Your task to perform on an android device: open app "Instagram" Image 0: 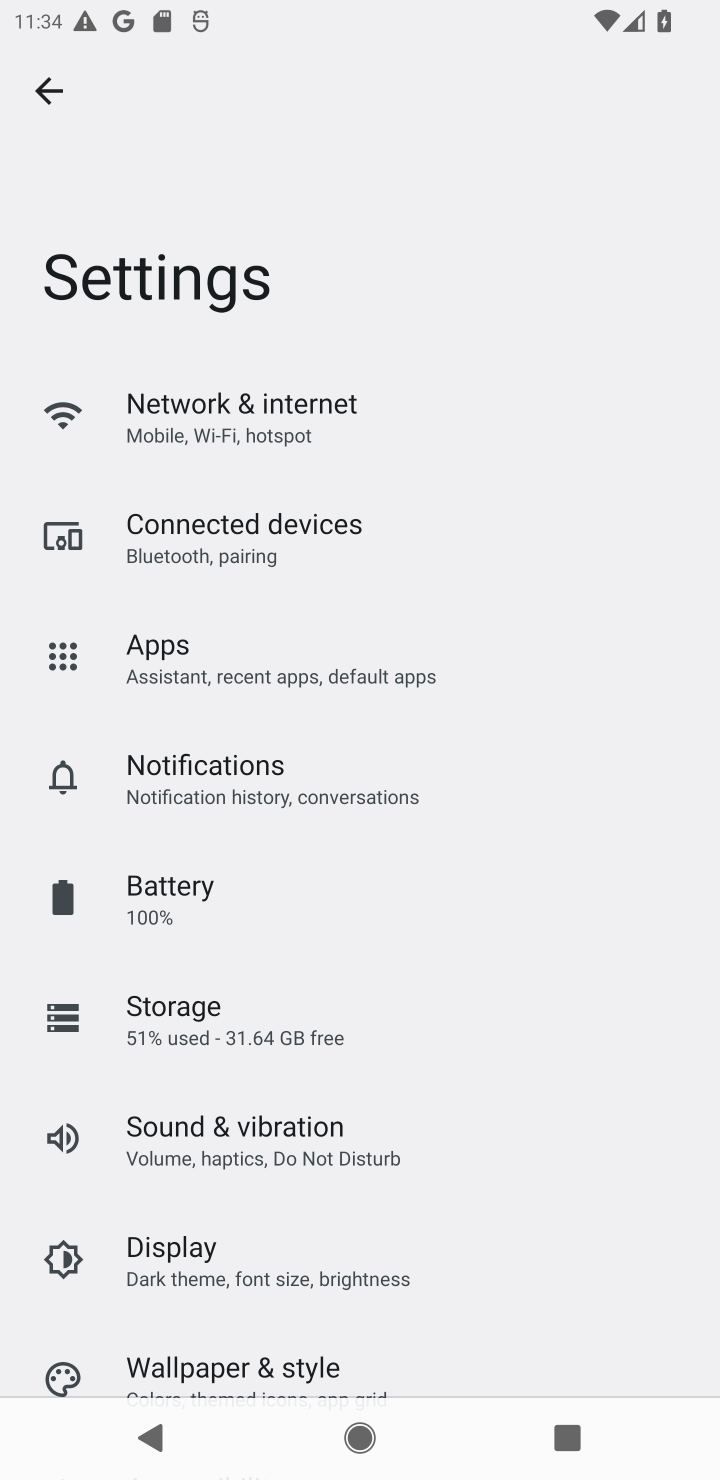
Step 0: press home button
Your task to perform on an android device: open app "Instagram" Image 1: 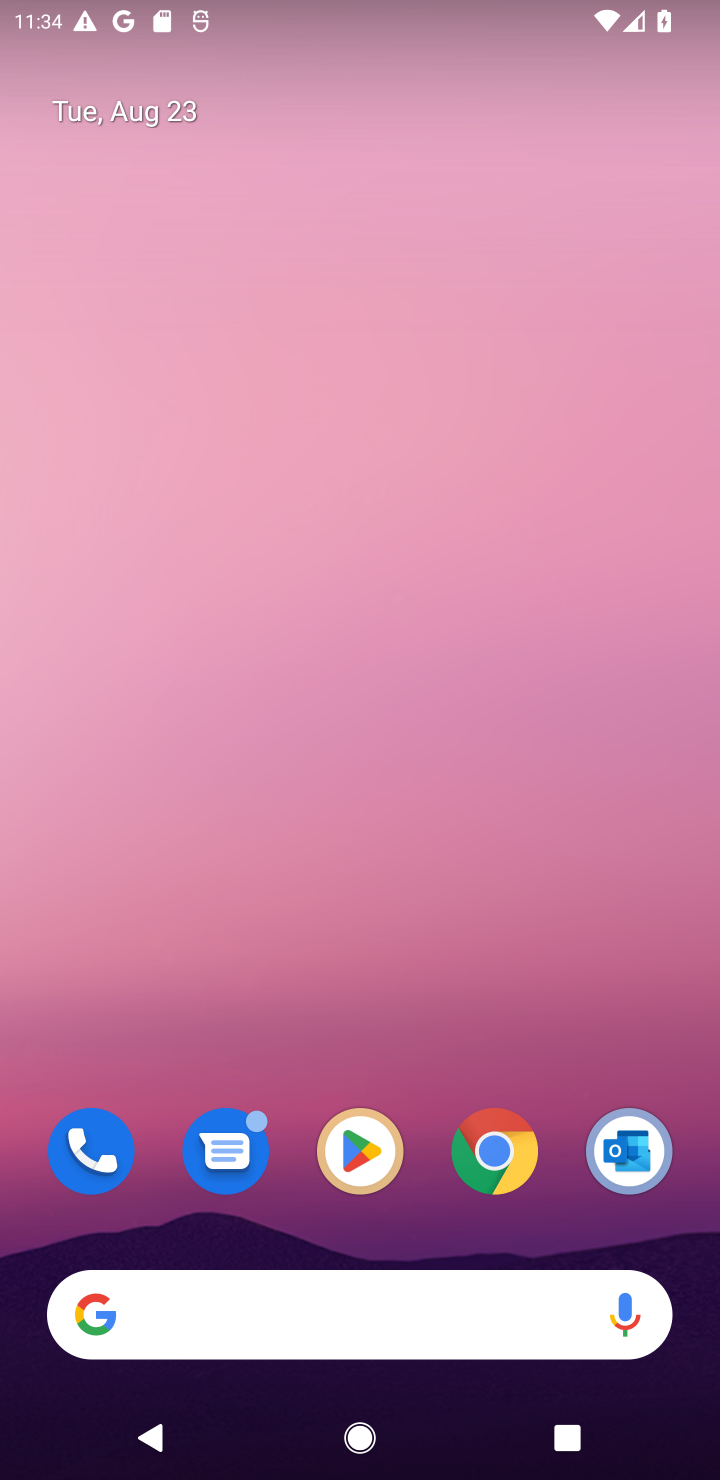
Step 1: click (387, 1143)
Your task to perform on an android device: open app "Instagram" Image 2: 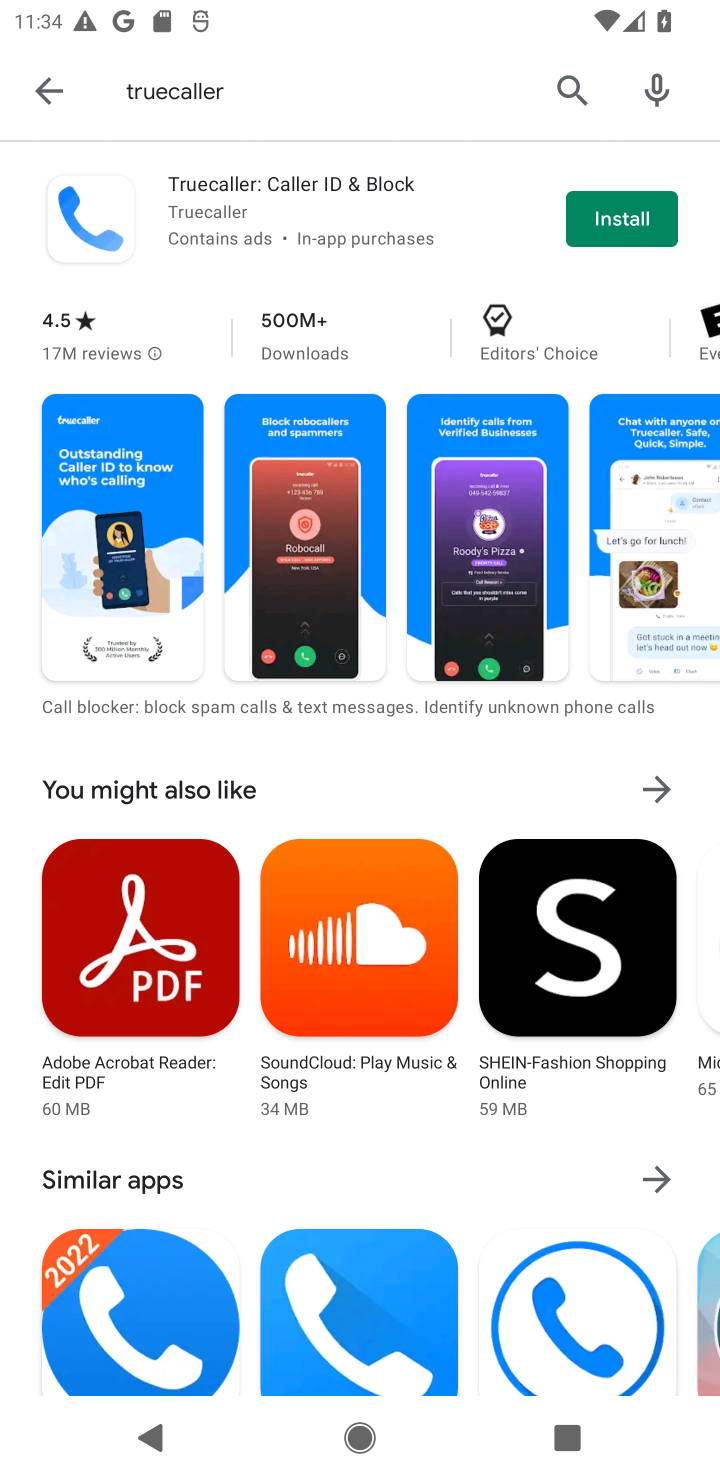
Step 2: click (559, 80)
Your task to perform on an android device: open app "Instagram" Image 3: 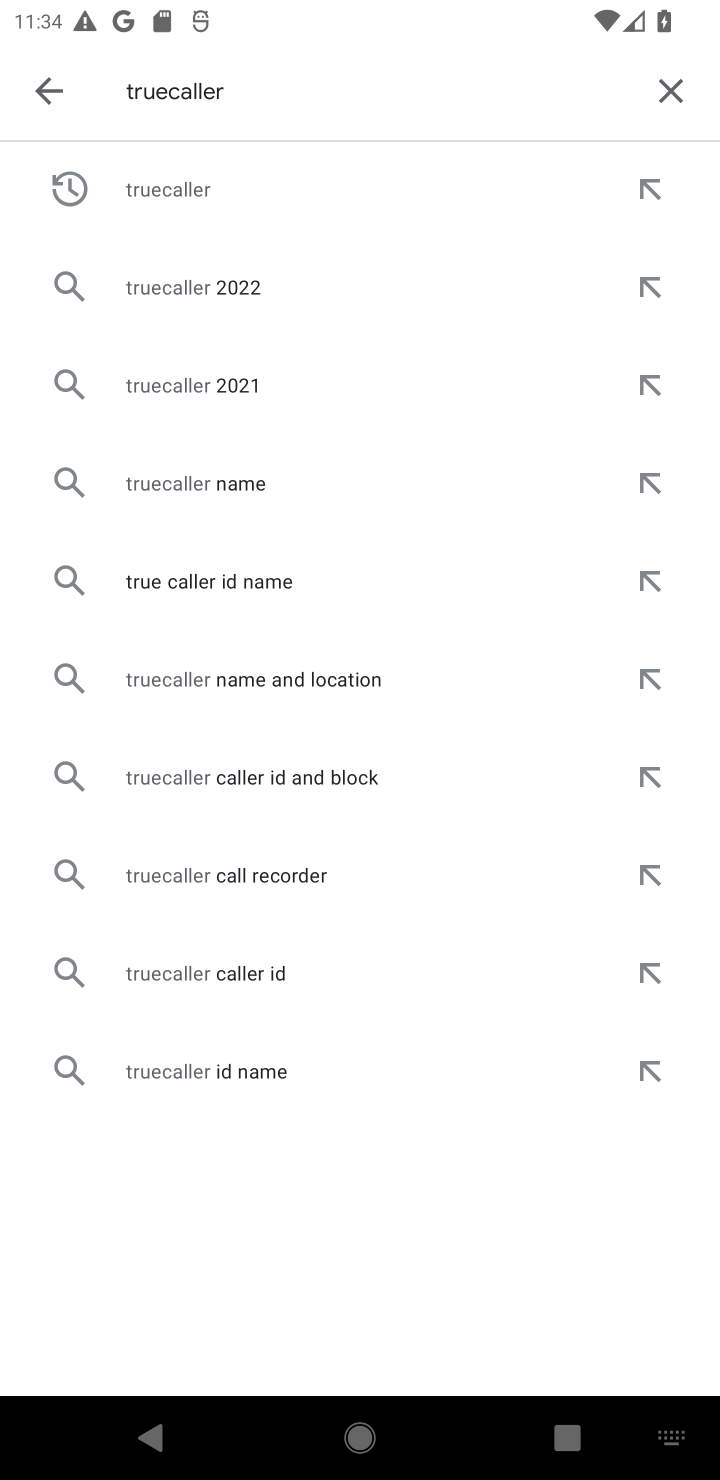
Step 3: click (666, 82)
Your task to perform on an android device: open app "Instagram" Image 4: 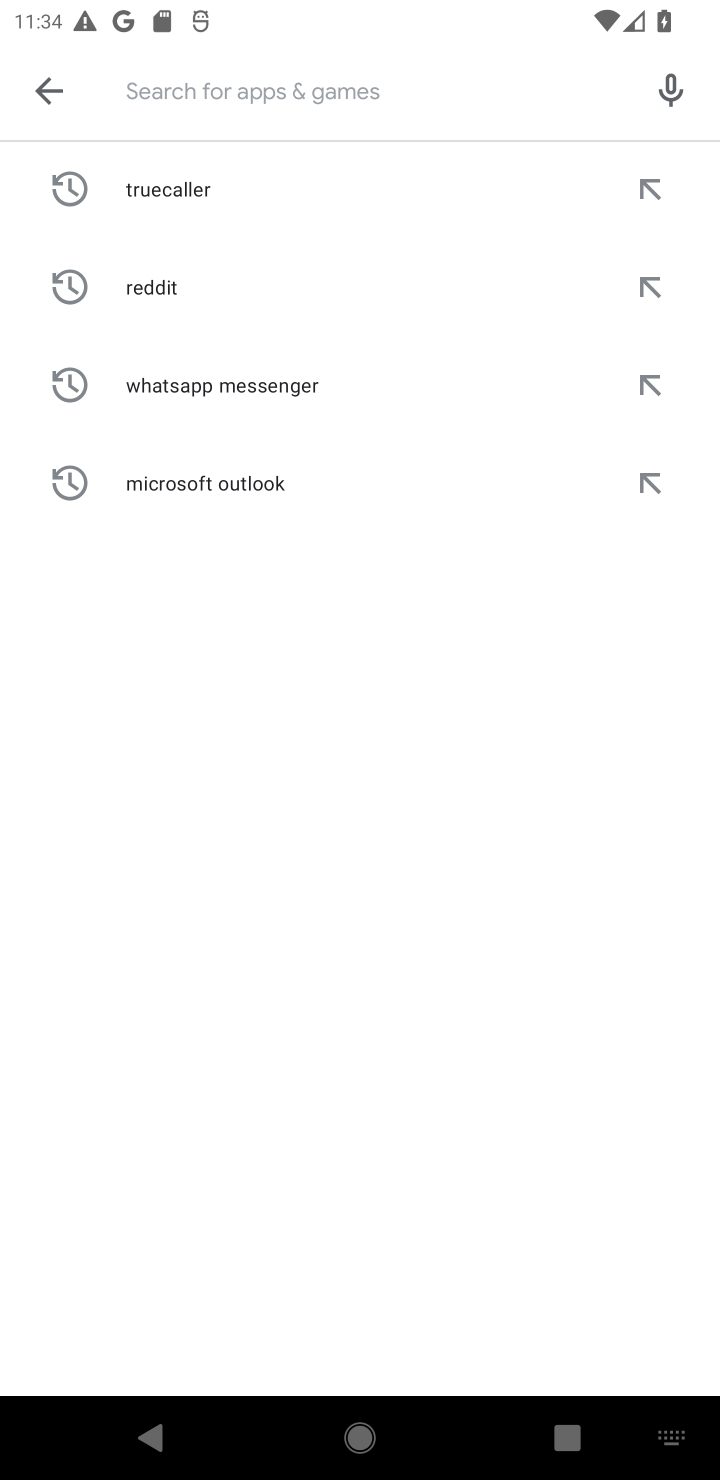
Step 4: type "Instagram"
Your task to perform on an android device: open app "Instagram" Image 5: 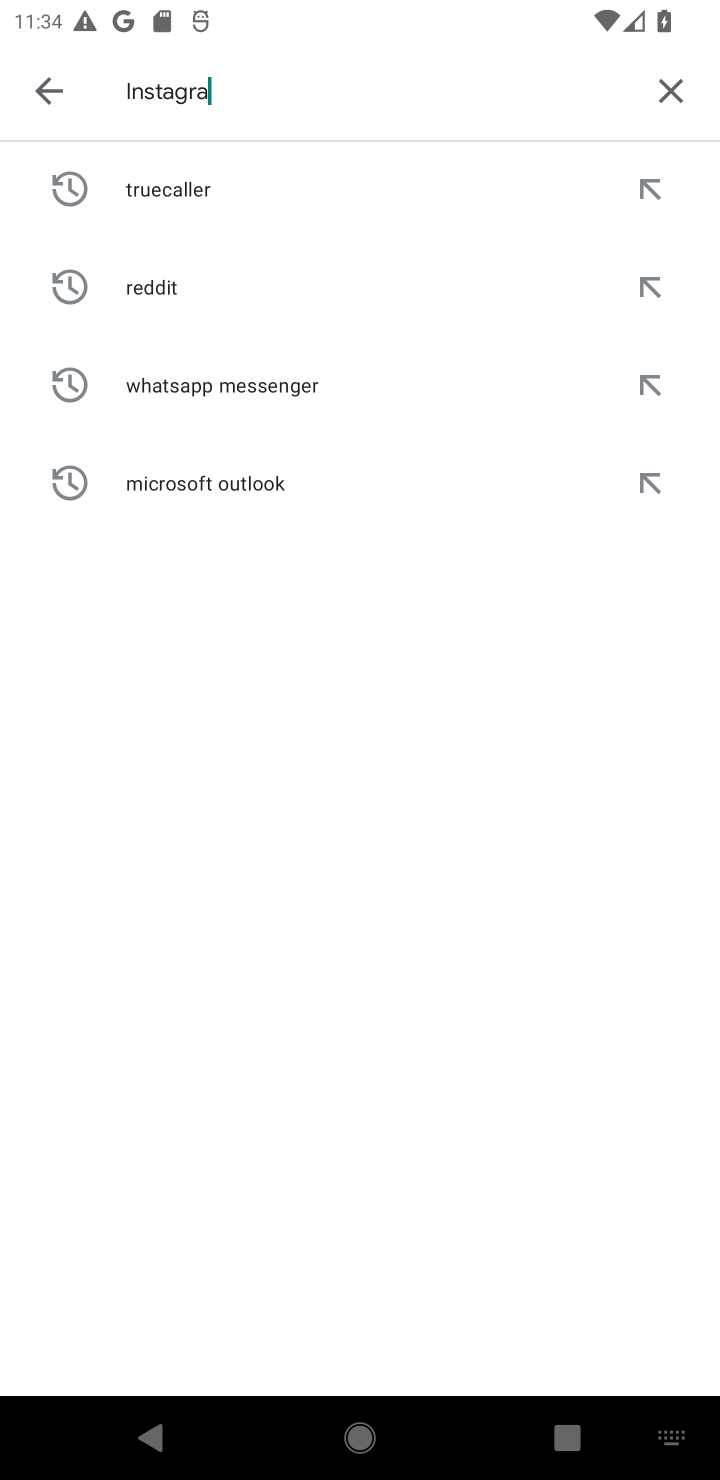
Step 5: type ""
Your task to perform on an android device: open app "Instagram" Image 6: 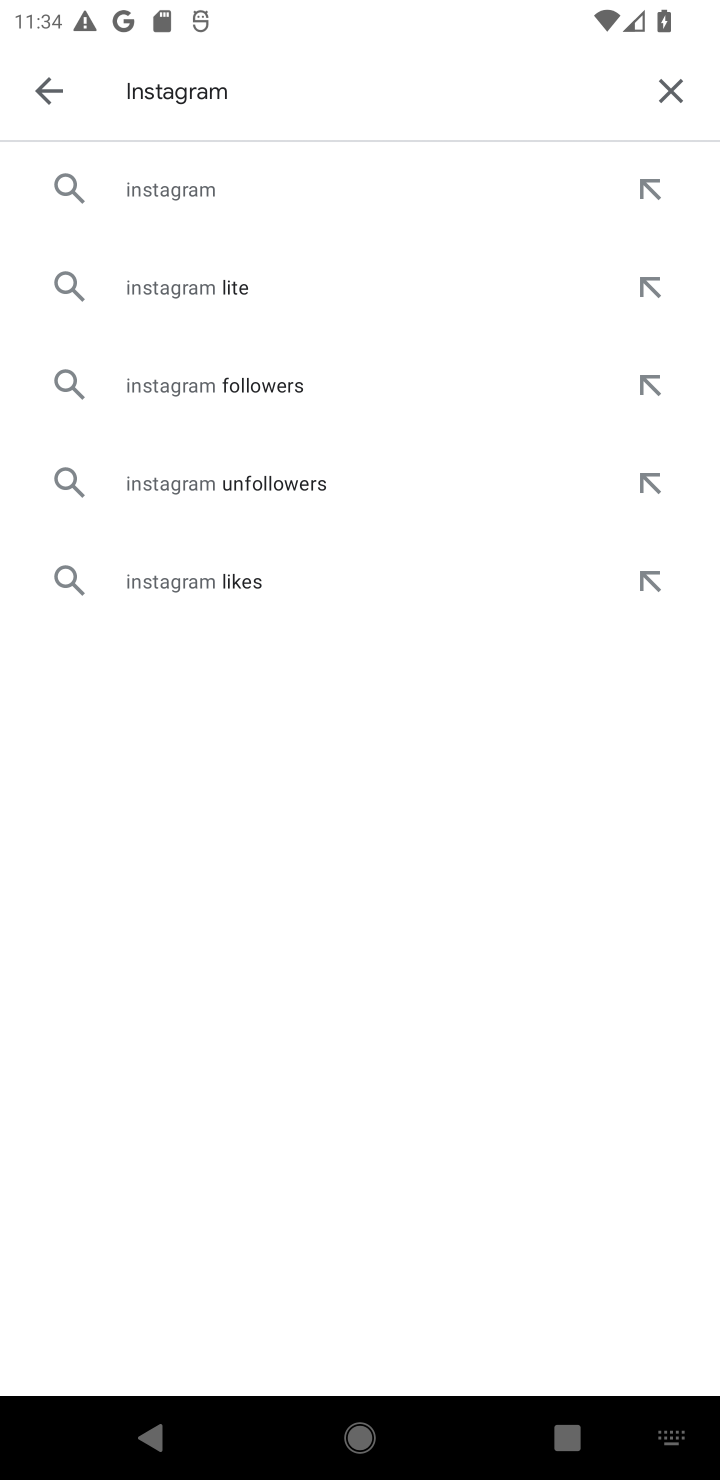
Step 6: click (225, 196)
Your task to perform on an android device: open app "Instagram" Image 7: 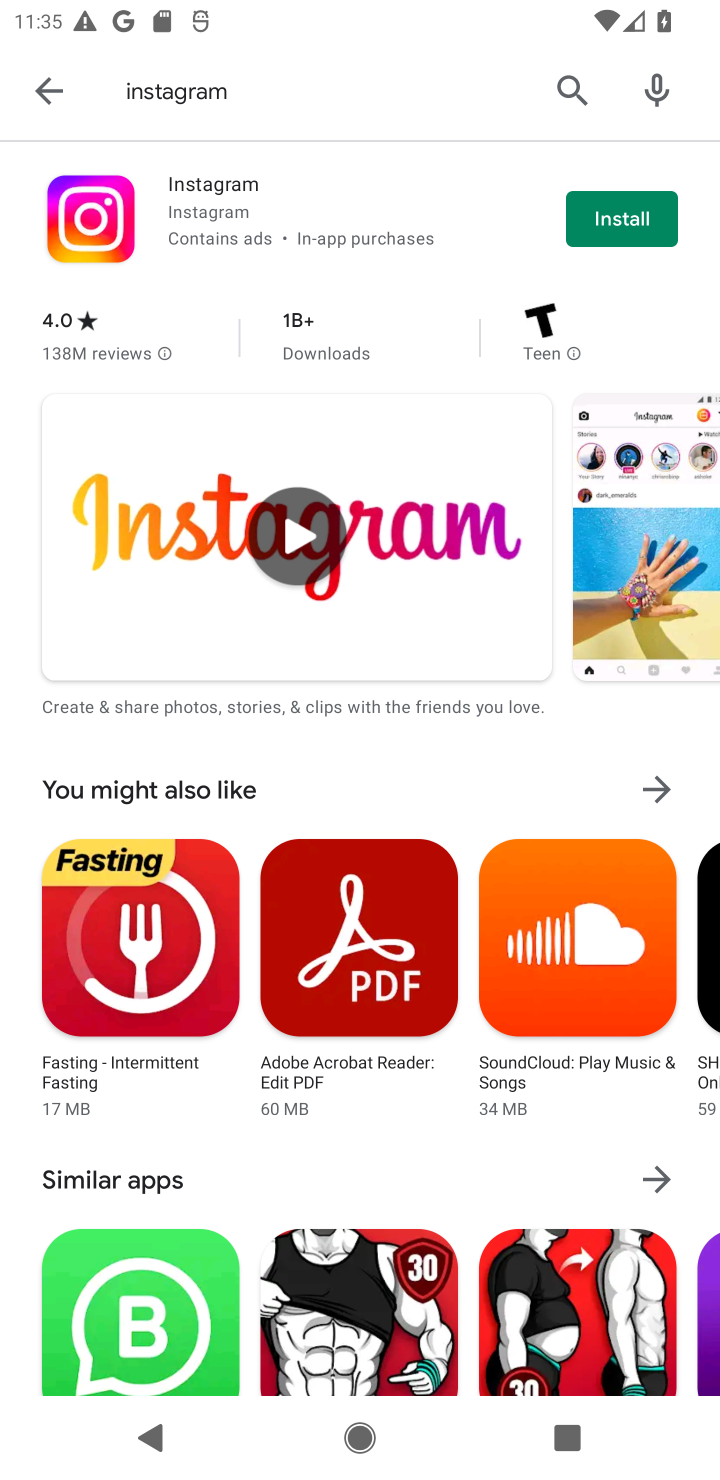
Step 7: click (596, 199)
Your task to perform on an android device: open app "Instagram" Image 8: 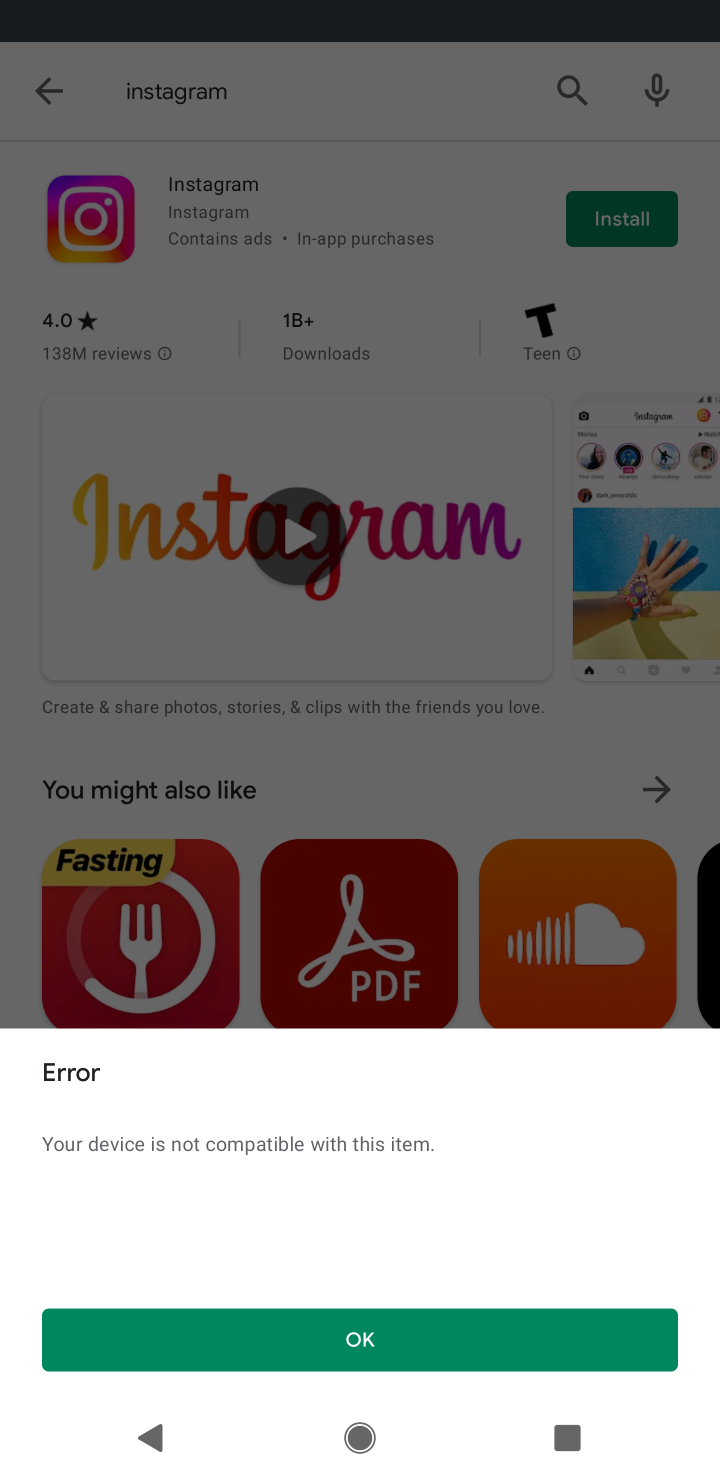
Step 8: task complete